Your task to perform on an android device: turn on translation in the chrome app Image 0: 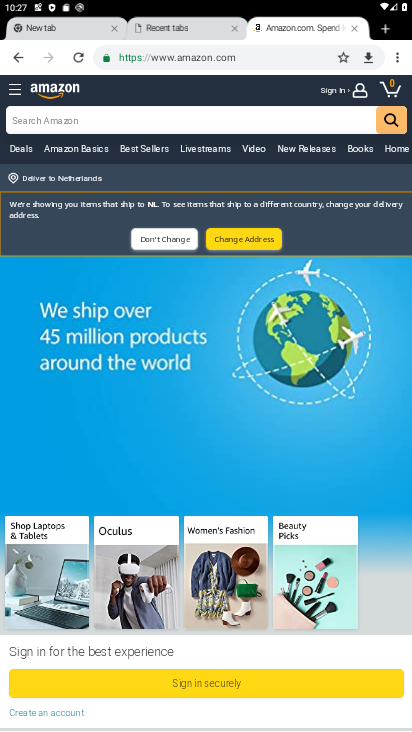
Step 0: press home button
Your task to perform on an android device: turn on translation in the chrome app Image 1: 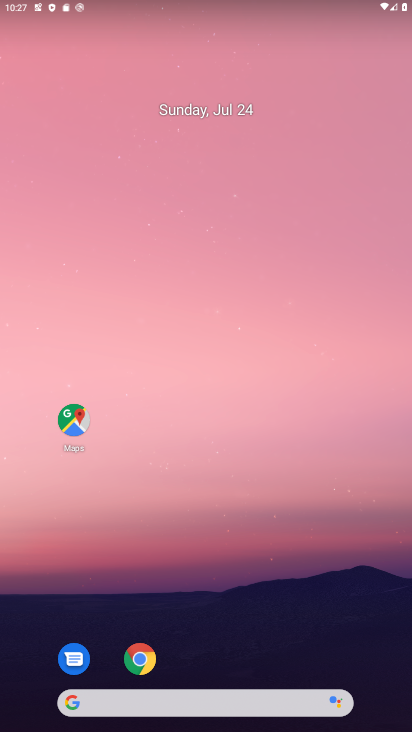
Step 1: click (133, 660)
Your task to perform on an android device: turn on translation in the chrome app Image 2: 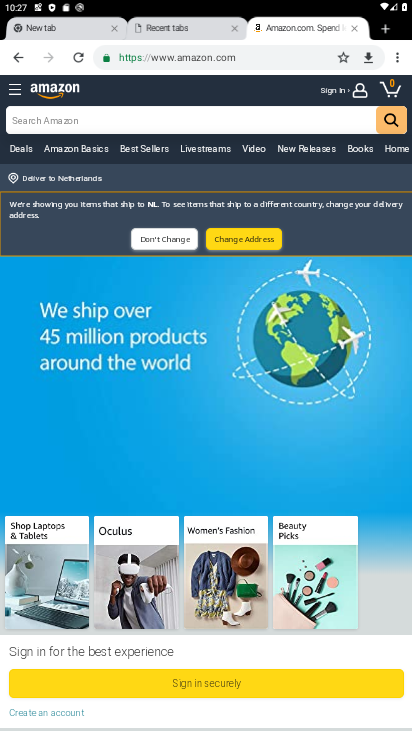
Step 2: click (396, 52)
Your task to perform on an android device: turn on translation in the chrome app Image 3: 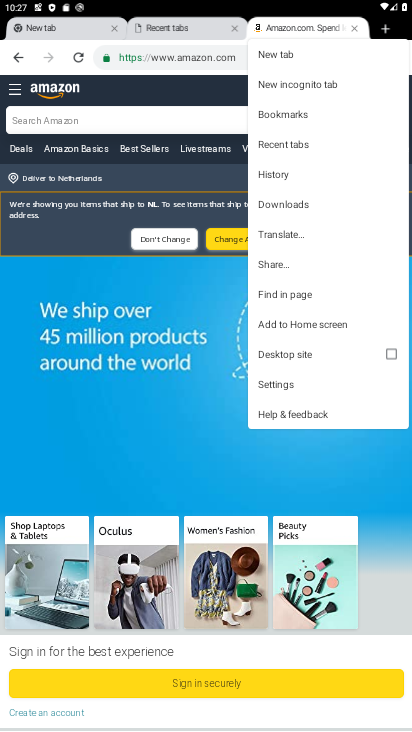
Step 3: click (273, 386)
Your task to perform on an android device: turn on translation in the chrome app Image 4: 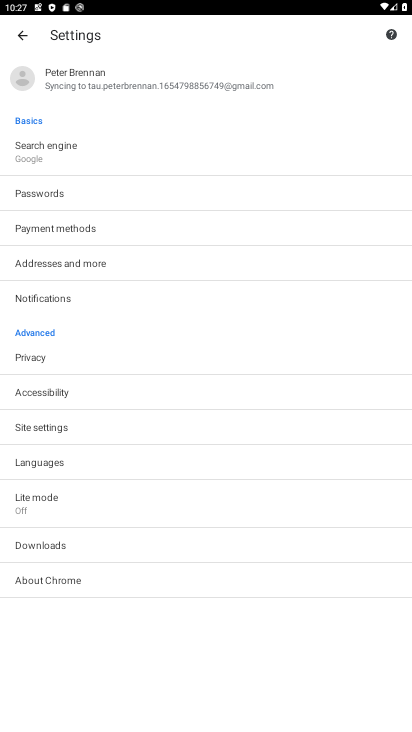
Step 4: click (79, 457)
Your task to perform on an android device: turn on translation in the chrome app Image 5: 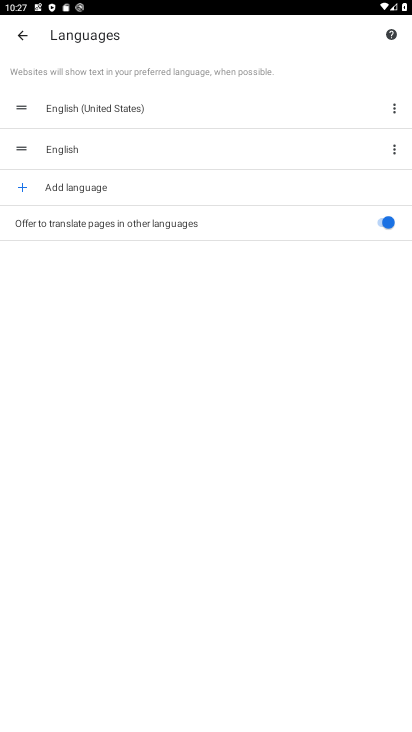
Step 5: task complete